Your task to perform on an android device: Open Android settings Image 0: 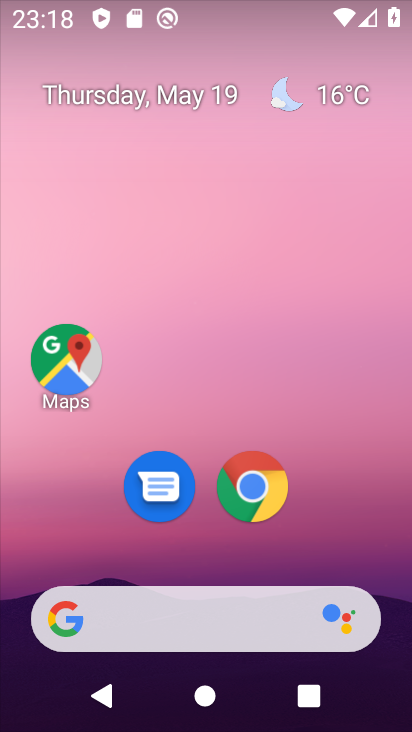
Step 0: drag from (356, 514) to (374, 71)
Your task to perform on an android device: Open Android settings Image 1: 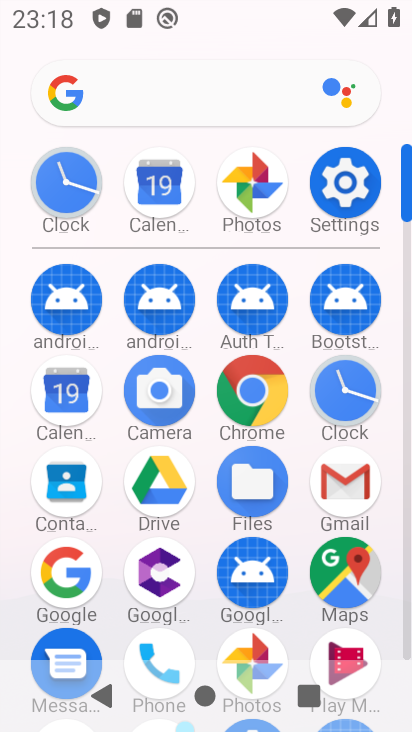
Step 1: click (365, 214)
Your task to perform on an android device: Open Android settings Image 2: 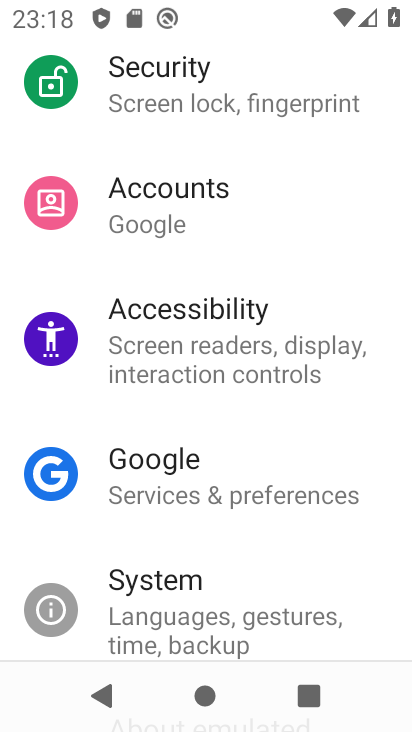
Step 2: task complete